Your task to perform on an android device: What is the news today? Image 0: 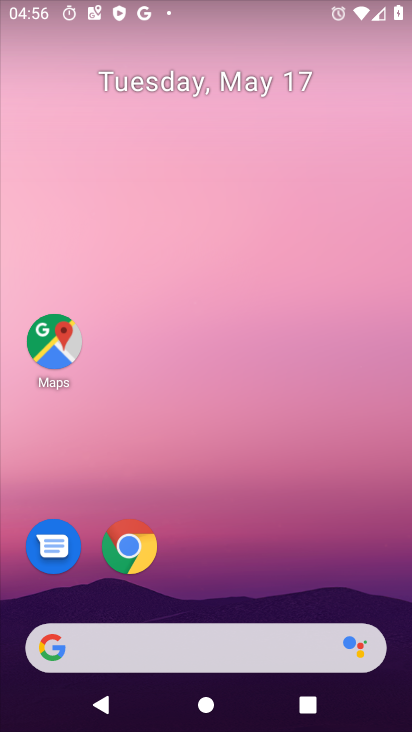
Step 0: drag from (405, 547) to (405, 277)
Your task to perform on an android device: What is the news today? Image 1: 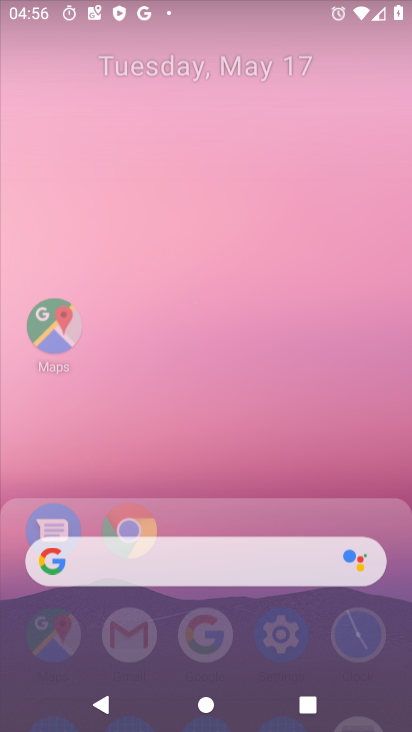
Step 1: drag from (398, 648) to (402, 303)
Your task to perform on an android device: What is the news today? Image 2: 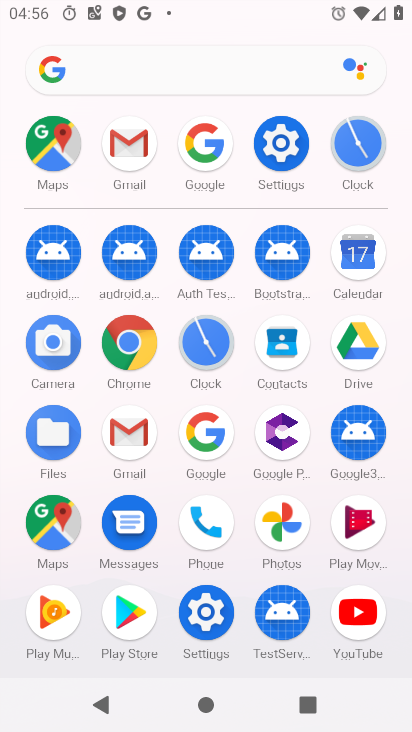
Step 2: click (192, 439)
Your task to perform on an android device: What is the news today? Image 3: 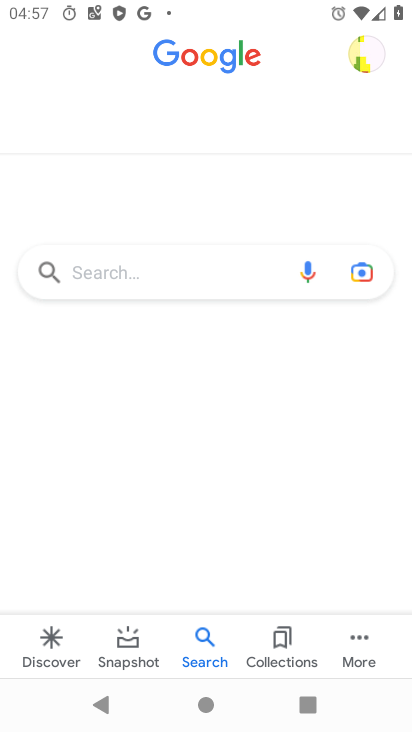
Step 3: press back button
Your task to perform on an android device: What is the news today? Image 4: 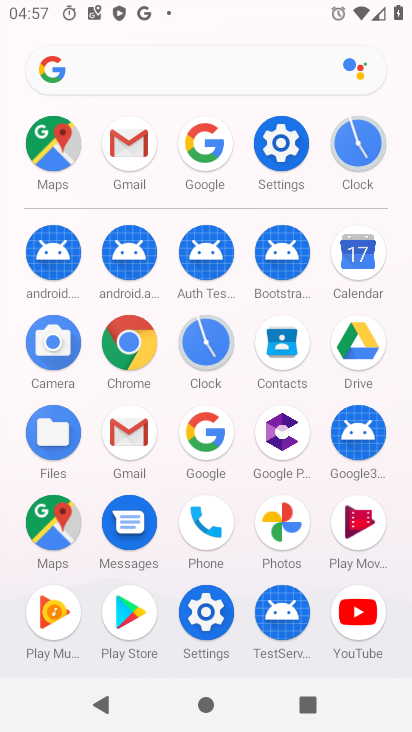
Step 4: click (198, 440)
Your task to perform on an android device: What is the news today? Image 5: 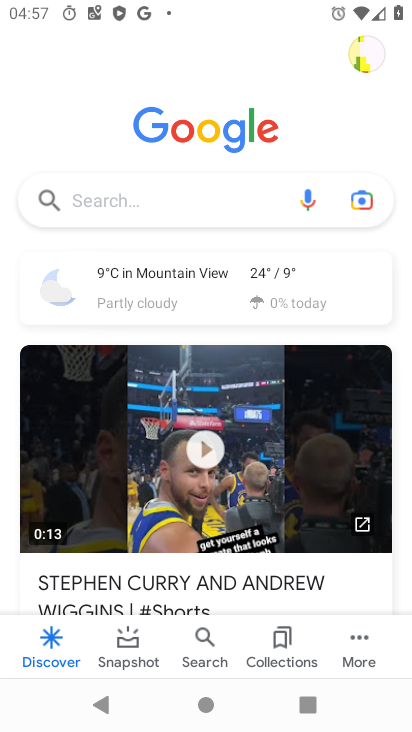
Step 5: task complete